Your task to perform on an android device: Open Wikipedia Image 0: 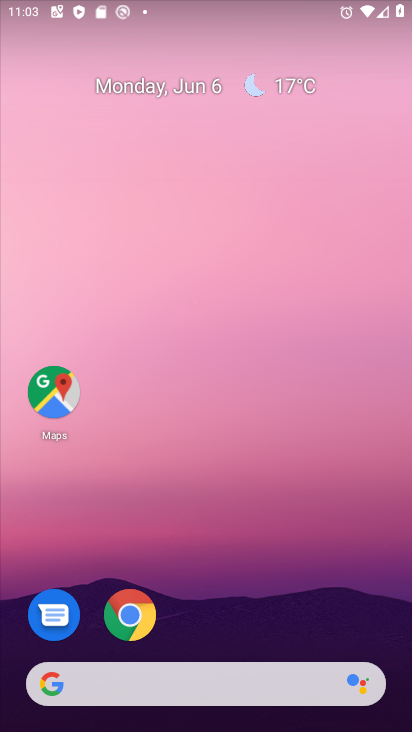
Step 0: click (132, 612)
Your task to perform on an android device: Open Wikipedia Image 1: 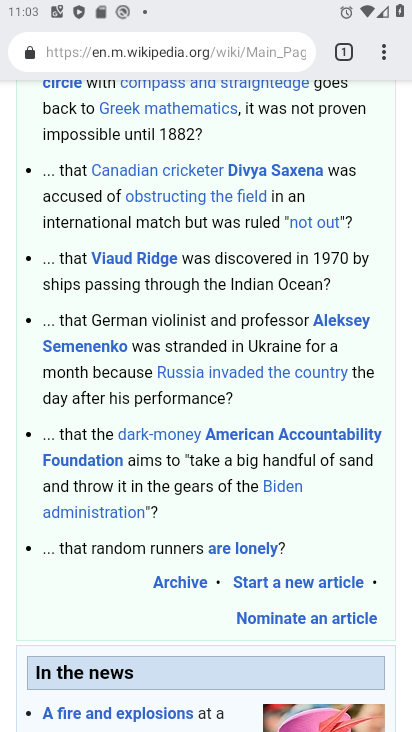
Step 1: task complete